Your task to perform on an android device: turn on wifi Image 0: 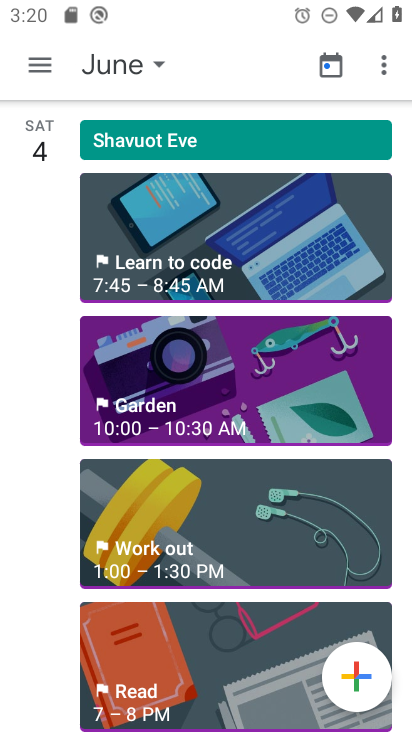
Step 0: press home button
Your task to perform on an android device: turn on wifi Image 1: 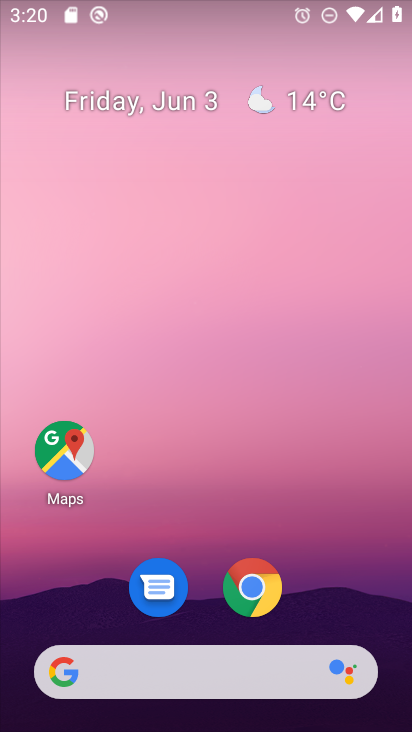
Step 1: drag from (246, 713) to (277, 174)
Your task to perform on an android device: turn on wifi Image 2: 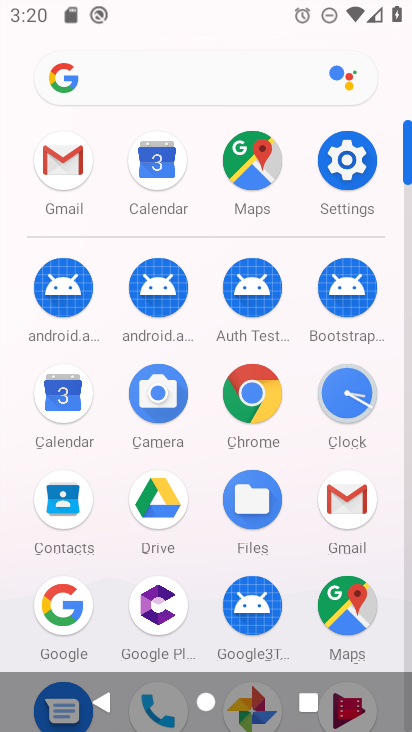
Step 2: click (353, 232)
Your task to perform on an android device: turn on wifi Image 3: 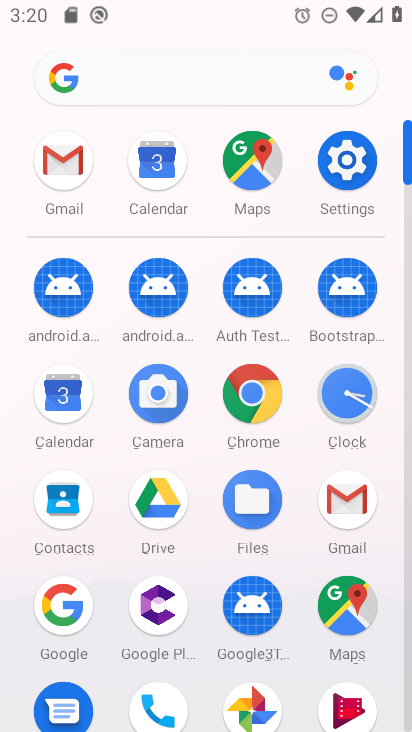
Step 3: click (352, 166)
Your task to perform on an android device: turn on wifi Image 4: 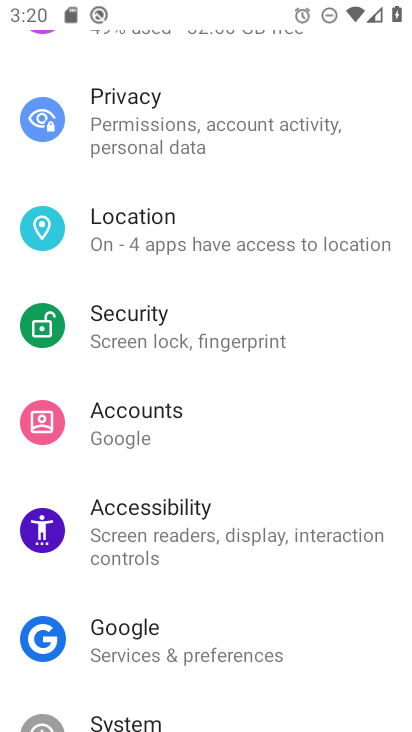
Step 4: drag from (278, 157) to (247, 511)
Your task to perform on an android device: turn on wifi Image 5: 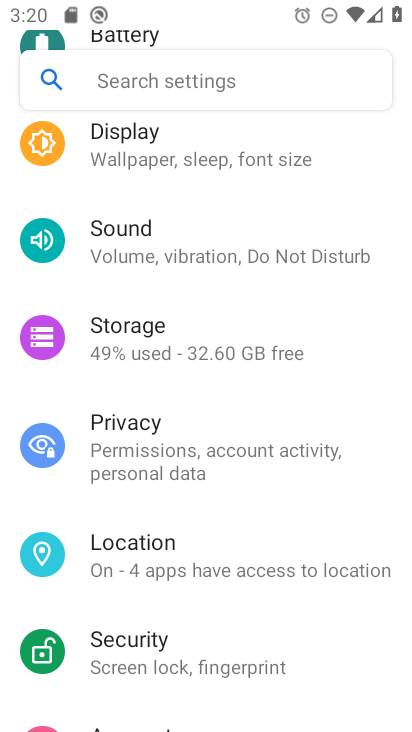
Step 5: drag from (252, 138) to (241, 559)
Your task to perform on an android device: turn on wifi Image 6: 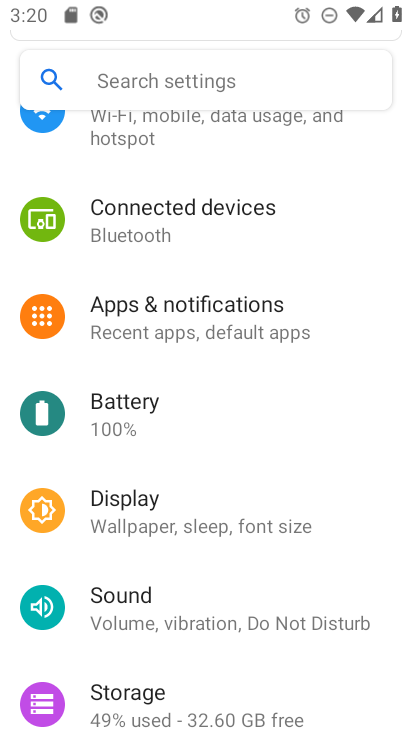
Step 6: drag from (244, 174) to (243, 582)
Your task to perform on an android device: turn on wifi Image 7: 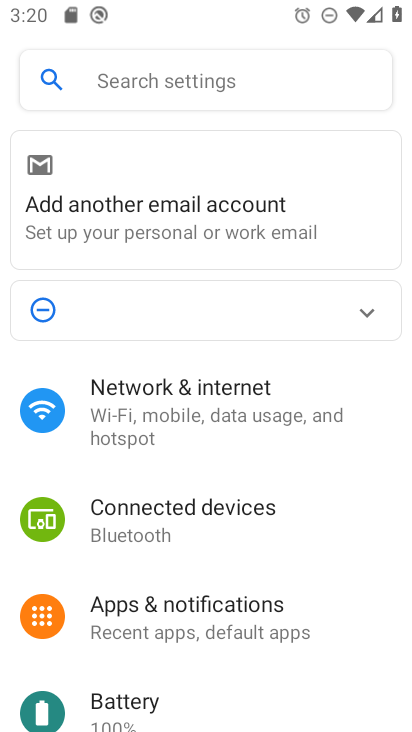
Step 7: click (198, 408)
Your task to perform on an android device: turn on wifi Image 8: 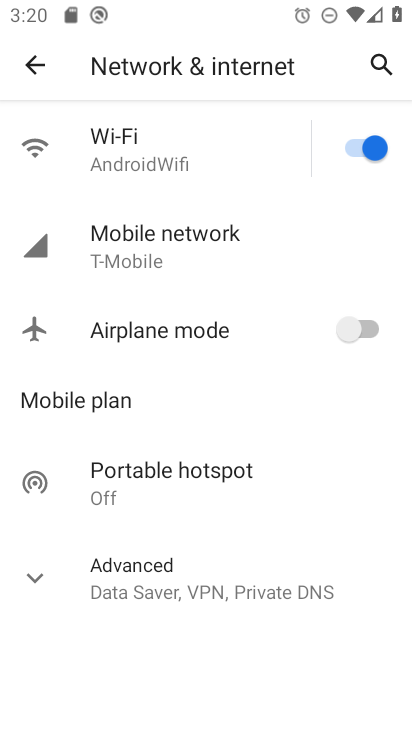
Step 8: task complete